Your task to perform on an android device: Empty the shopping cart on costco.com. Search for "bose soundlink" on costco.com, select the first entry, and add it to the cart. Image 0: 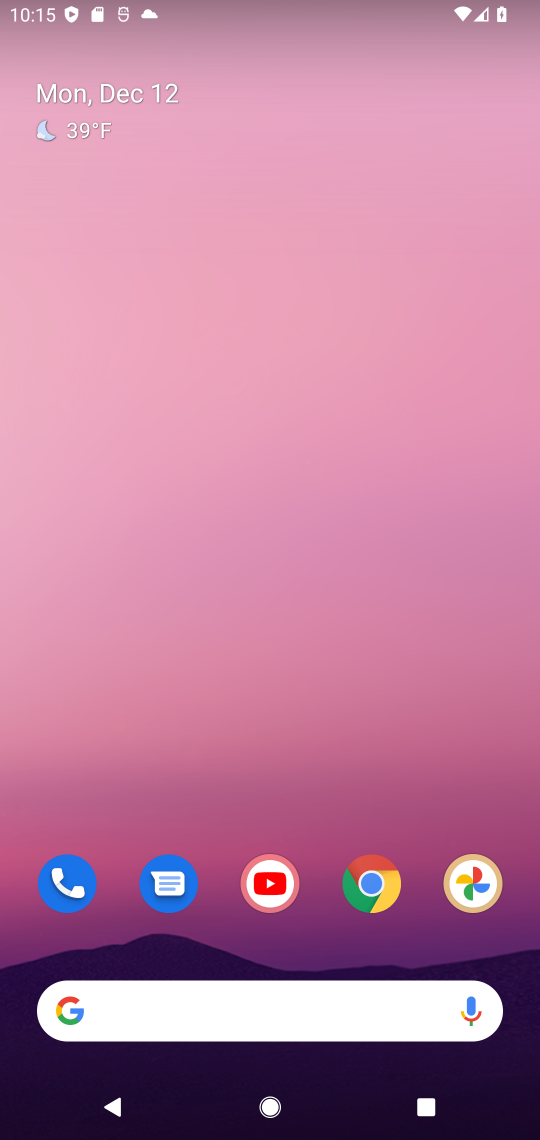
Step 0: press home button
Your task to perform on an android device: Empty the shopping cart on costco.com. Search for "bose soundlink" on costco.com, select the first entry, and add it to the cart. Image 1: 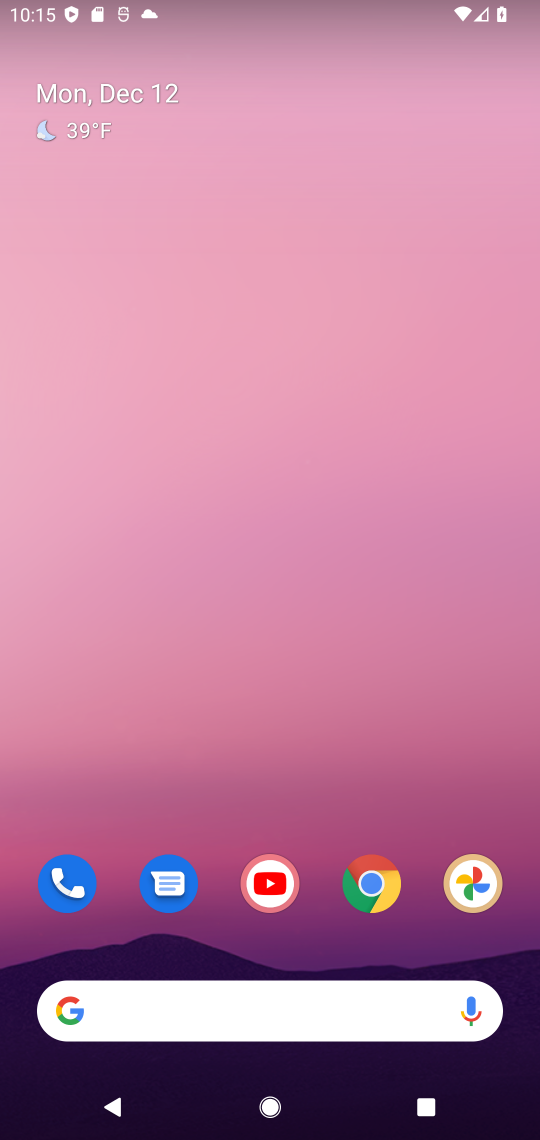
Step 1: click (265, 1004)
Your task to perform on an android device: Empty the shopping cart on costco.com. Search for "bose soundlink" on costco.com, select the first entry, and add it to the cart. Image 2: 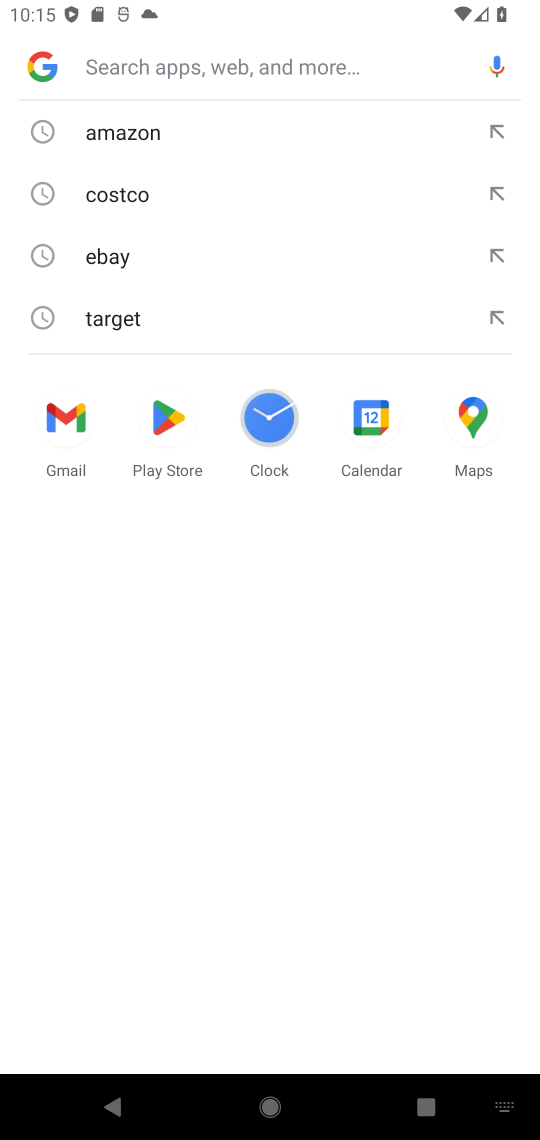
Step 2: click (130, 198)
Your task to perform on an android device: Empty the shopping cart on costco.com. Search for "bose soundlink" on costco.com, select the first entry, and add it to the cart. Image 3: 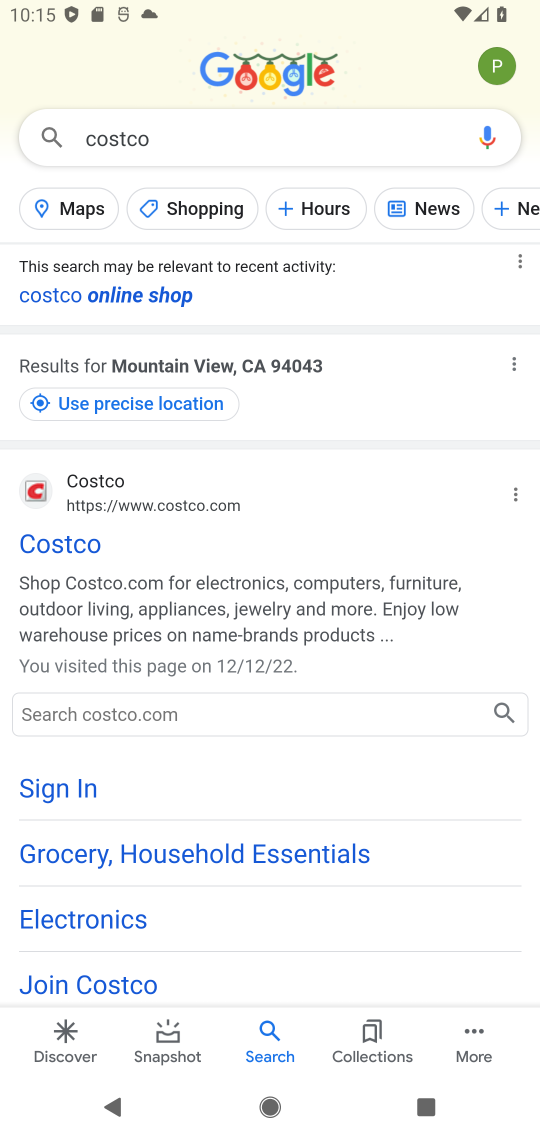
Step 3: click (59, 536)
Your task to perform on an android device: Empty the shopping cart on costco.com. Search for "bose soundlink" on costco.com, select the first entry, and add it to the cart. Image 4: 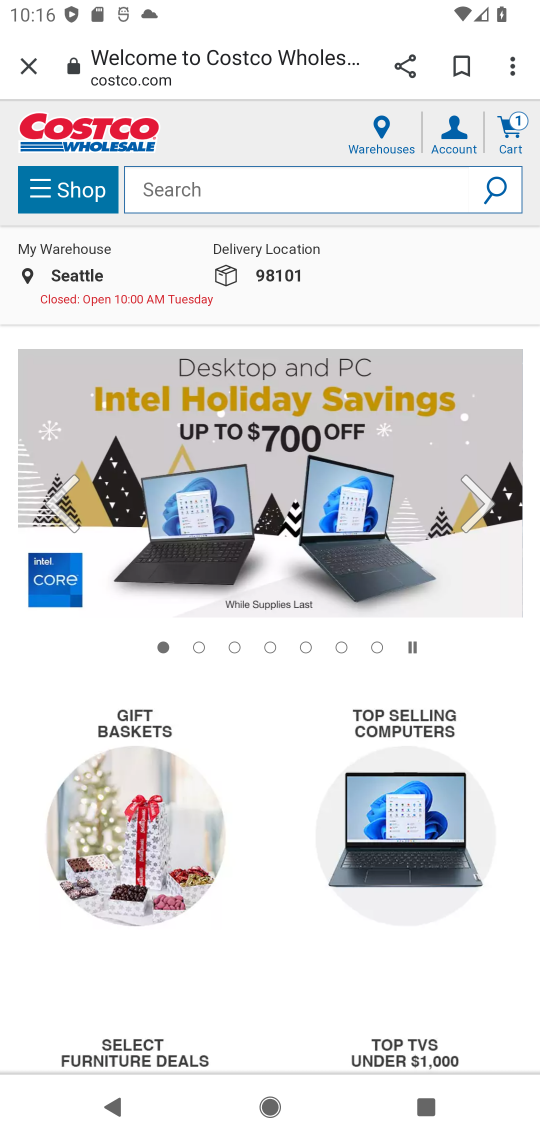
Step 4: click (265, 186)
Your task to perform on an android device: Empty the shopping cart on costco.com. Search for "bose soundlink" on costco.com, select the first entry, and add it to the cart. Image 5: 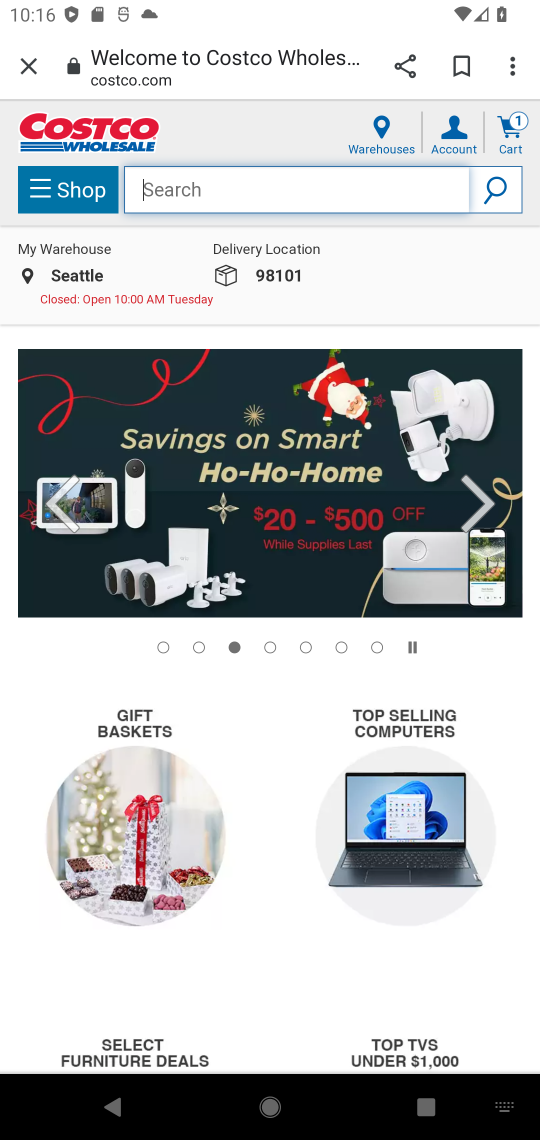
Step 5: type "bose soundlink"
Your task to perform on an android device: Empty the shopping cart on costco.com. Search for "bose soundlink" on costco.com, select the first entry, and add it to the cart. Image 6: 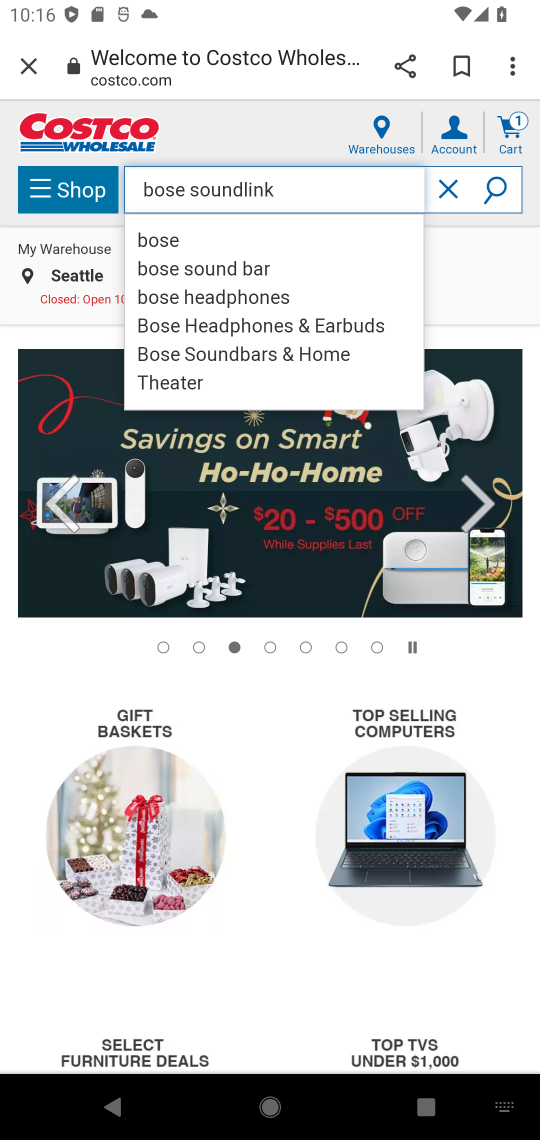
Step 6: click (501, 174)
Your task to perform on an android device: Empty the shopping cart on costco.com. Search for "bose soundlink" on costco.com, select the first entry, and add it to the cart. Image 7: 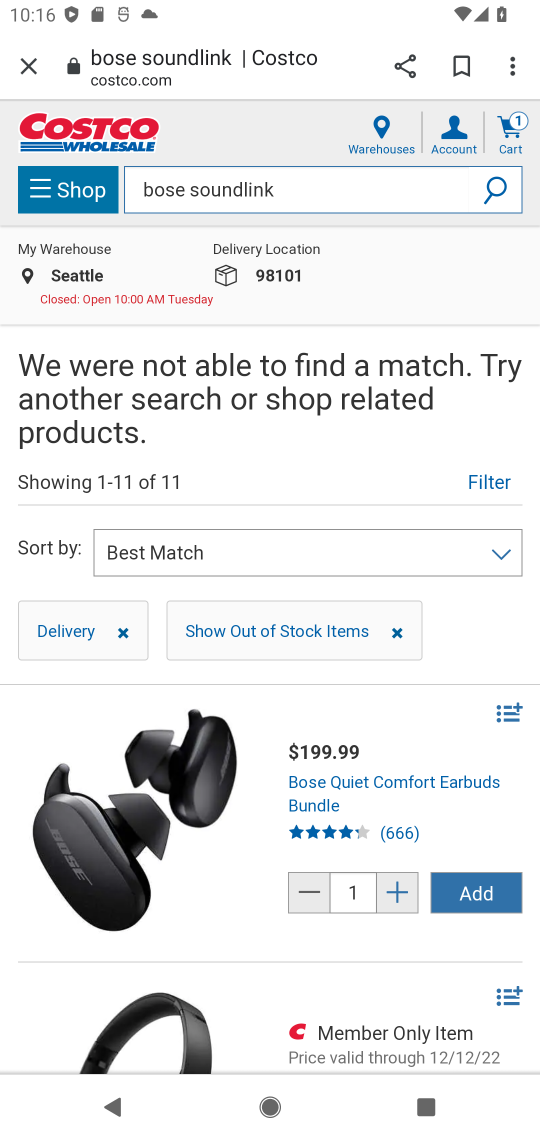
Step 7: click (475, 886)
Your task to perform on an android device: Empty the shopping cart on costco.com. Search for "bose soundlink" on costco.com, select the first entry, and add it to the cart. Image 8: 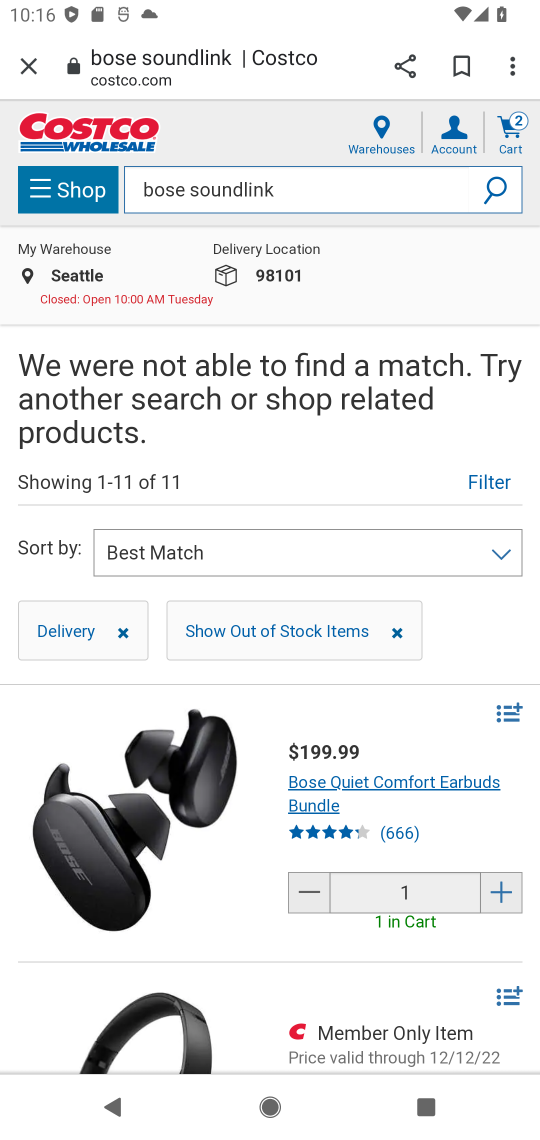
Step 8: task complete